Your task to perform on an android device: check storage Image 0: 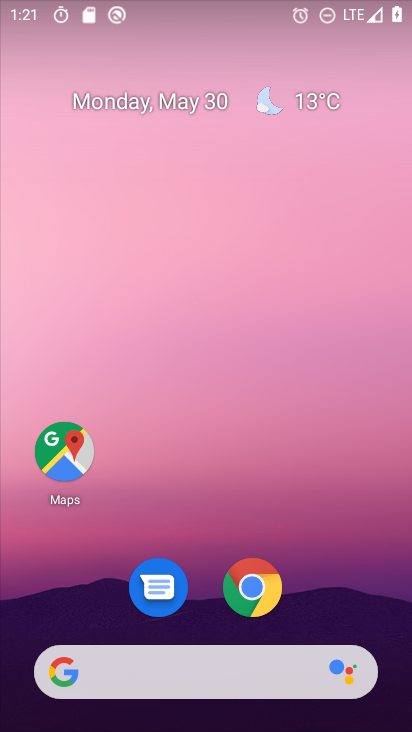
Step 0: drag from (353, 594) to (302, 121)
Your task to perform on an android device: check storage Image 1: 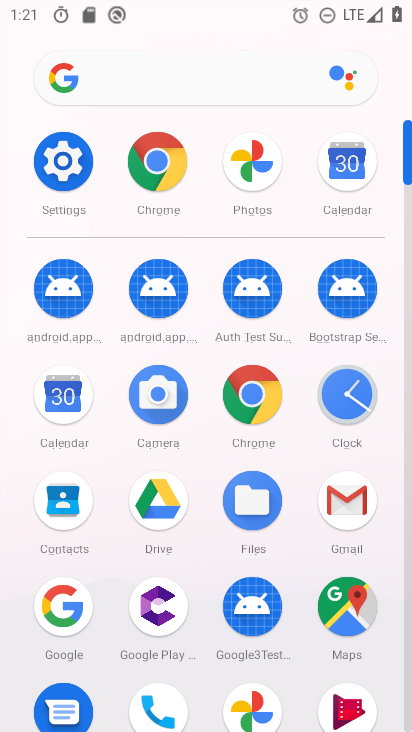
Step 1: click (57, 172)
Your task to perform on an android device: check storage Image 2: 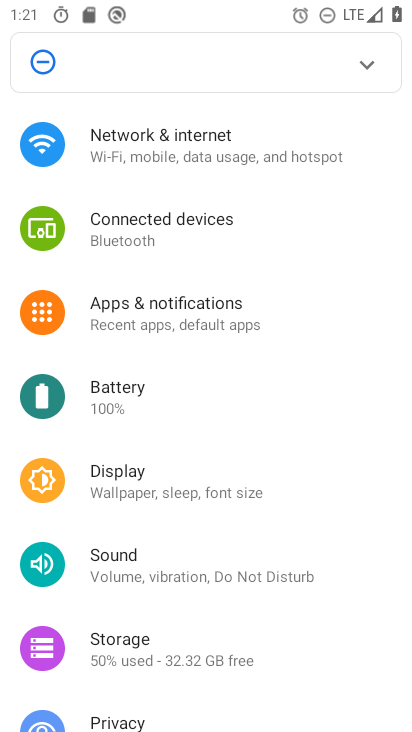
Step 2: drag from (182, 544) to (225, 244)
Your task to perform on an android device: check storage Image 3: 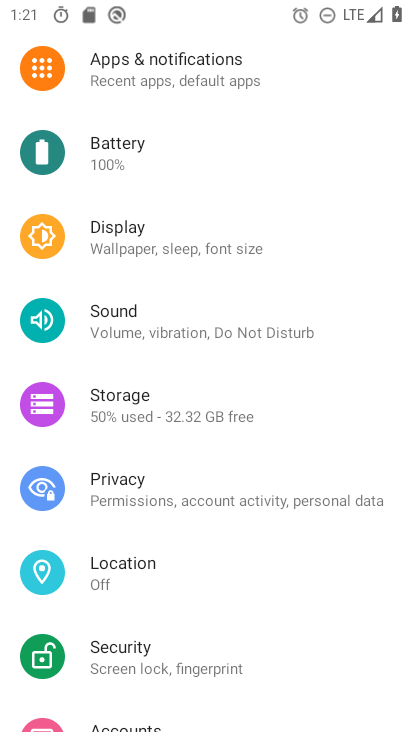
Step 3: click (172, 410)
Your task to perform on an android device: check storage Image 4: 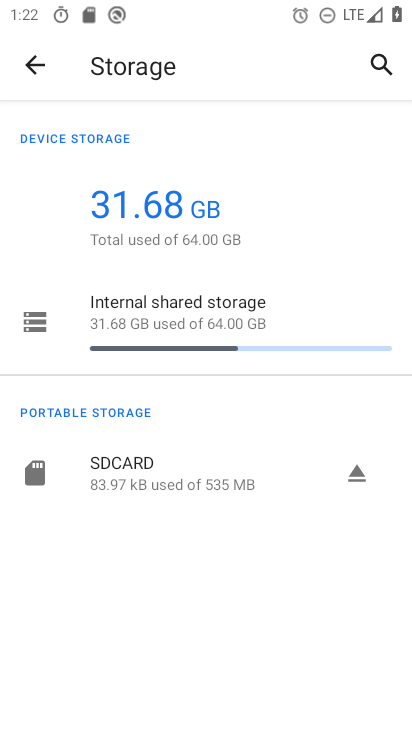
Step 4: task complete